Your task to perform on an android device: What is the news today? Image 0: 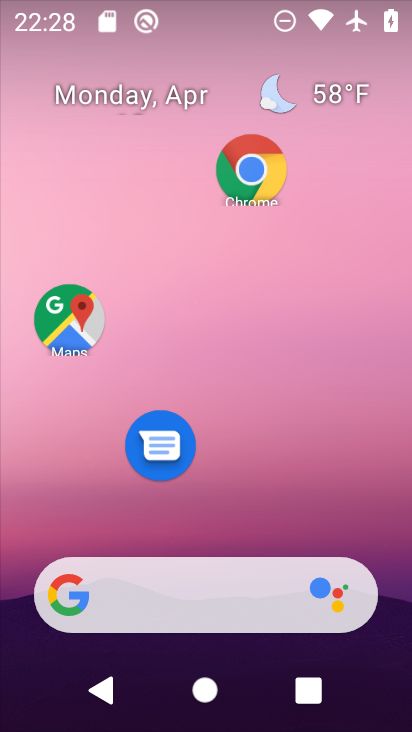
Step 0: drag from (220, 515) to (194, 165)
Your task to perform on an android device: What is the news today? Image 1: 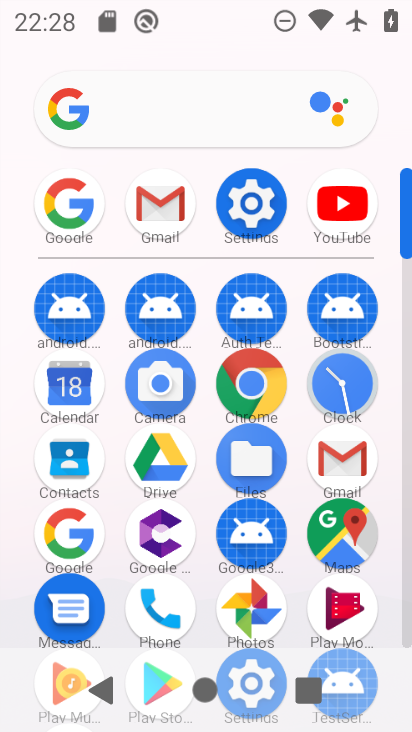
Step 1: click (59, 227)
Your task to perform on an android device: What is the news today? Image 2: 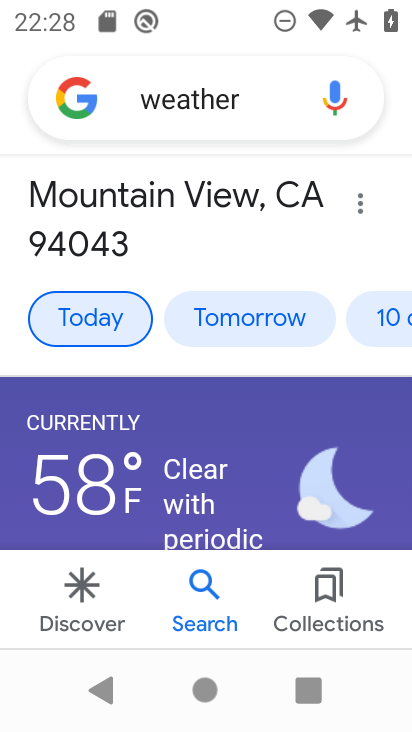
Step 2: click (84, 103)
Your task to perform on an android device: What is the news today? Image 3: 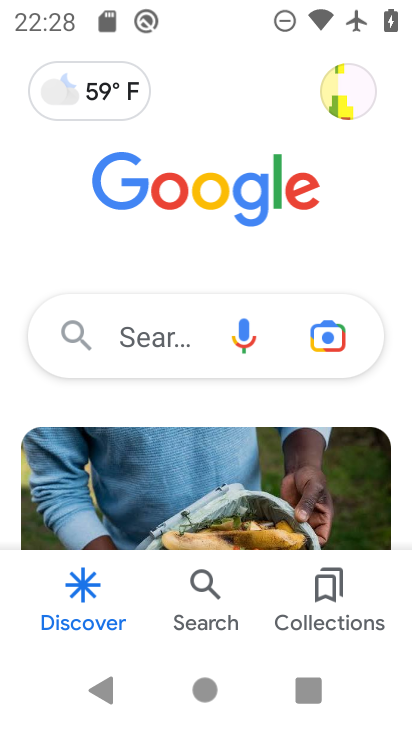
Step 3: task complete